Your task to perform on an android device: Show the shopping cart on newegg. Search for dell xps on newegg, select the first entry, add it to the cart, then select checkout. Image 0: 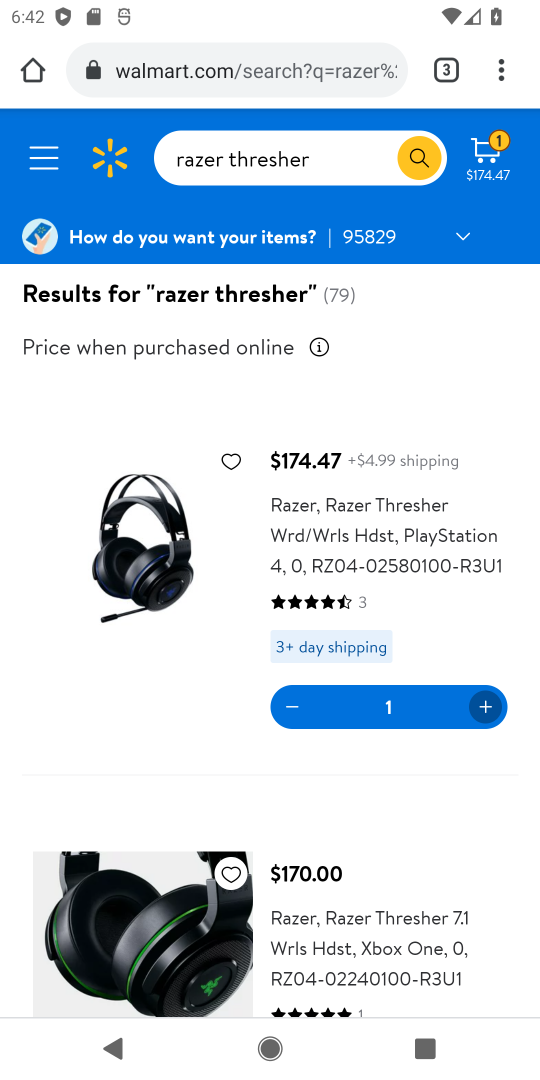
Step 0: press home button
Your task to perform on an android device: Show the shopping cart on newegg. Search for dell xps on newegg, select the first entry, add it to the cart, then select checkout. Image 1: 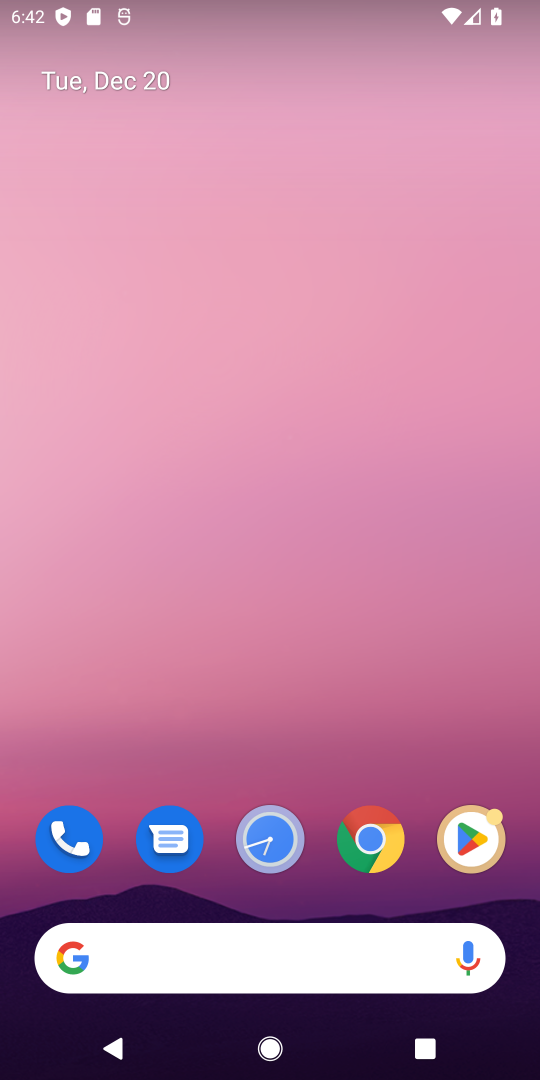
Step 1: click (171, 967)
Your task to perform on an android device: Show the shopping cart on newegg. Search for dell xps on newegg, select the first entry, add it to the cart, then select checkout. Image 2: 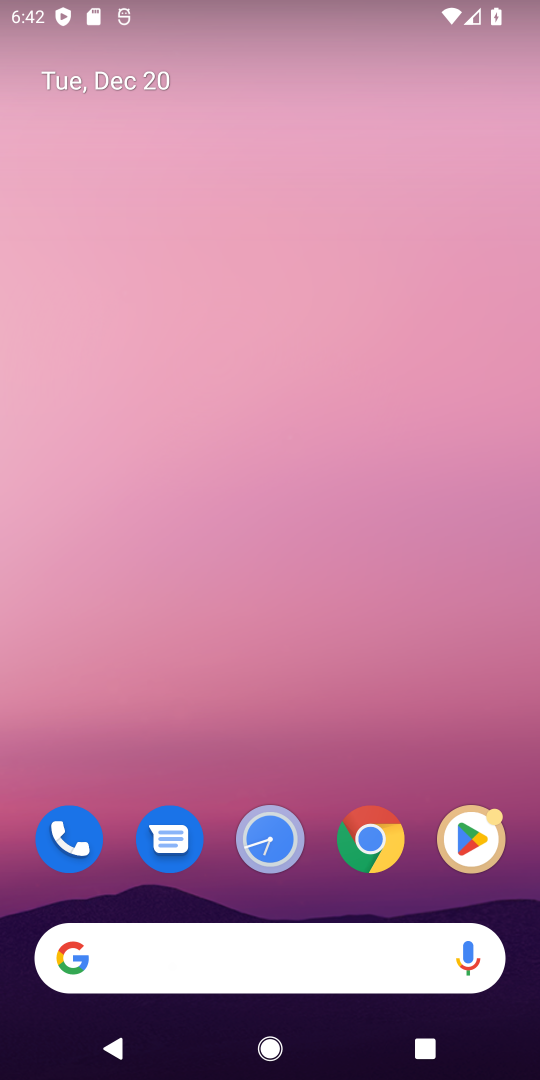
Step 2: click (171, 967)
Your task to perform on an android device: Show the shopping cart on newegg. Search for dell xps on newegg, select the first entry, add it to the cart, then select checkout. Image 3: 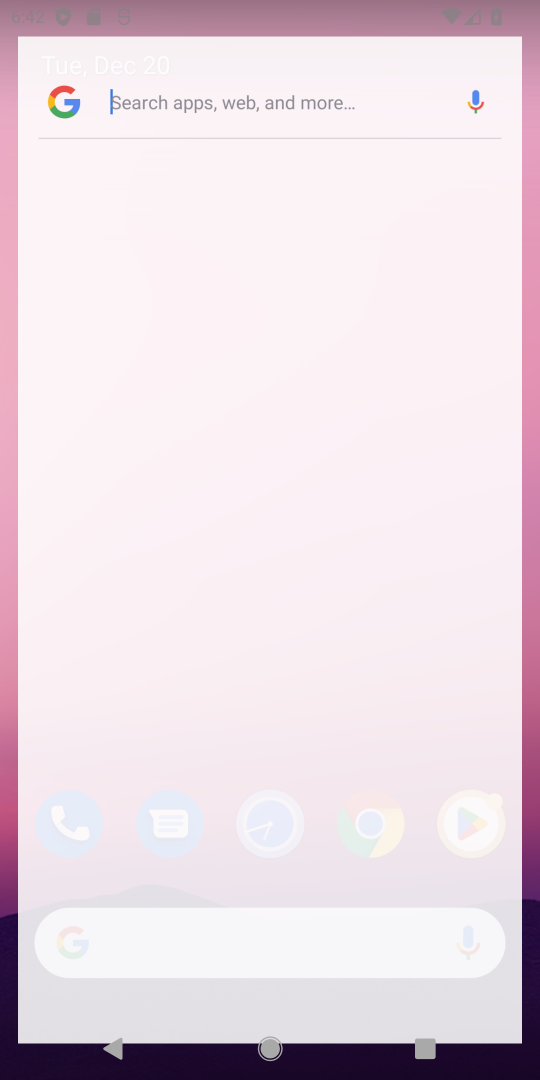
Step 3: click (220, 924)
Your task to perform on an android device: Show the shopping cart on newegg. Search for dell xps on newegg, select the first entry, add it to the cart, then select checkout. Image 4: 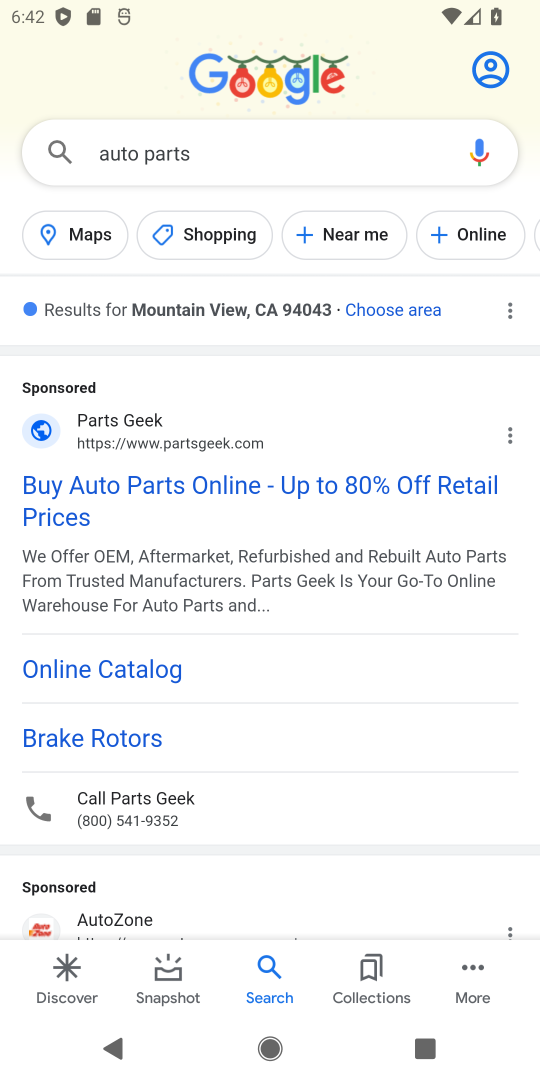
Step 4: click (201, 150)
Your task to perform on an android device: Show the shopping cart on newegg. Search for dell xps on newegg, select the first entry, add it to the cart, then select checkout. Image 5: 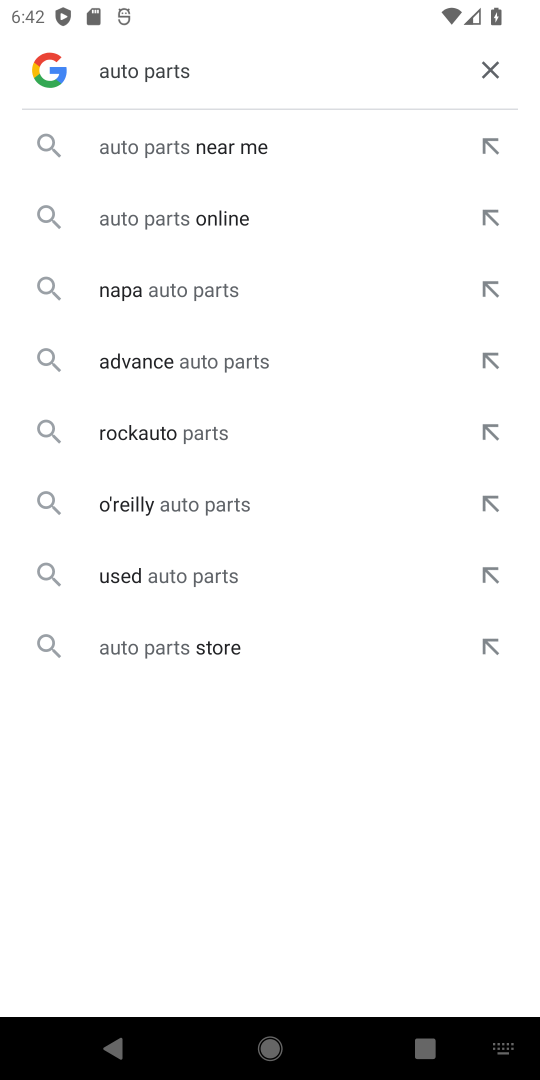
Step 5: click (484, 64)
Your task to perform on an android device: Show the shopping cart on newegg. Search for dell xps on newegg, select the first entry, add it to the cart, then select checkout. Image 6: 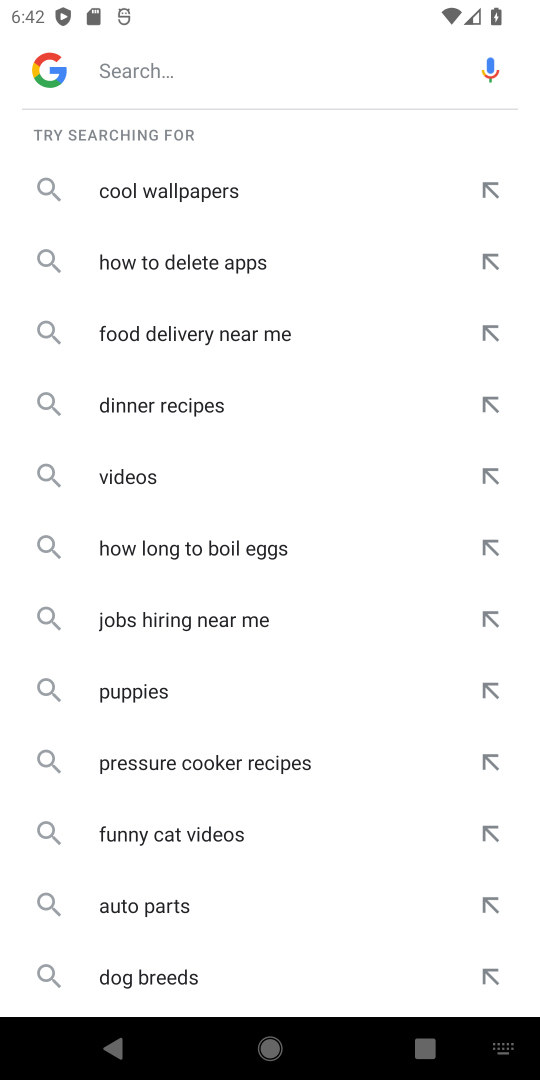
Step 6: type "newegg"
Your task to perform on an android device: Show the shopping cart on newegg. Search for dell xps on newegg, select the first entry, add it to the cart, then select checkout. Image 7: 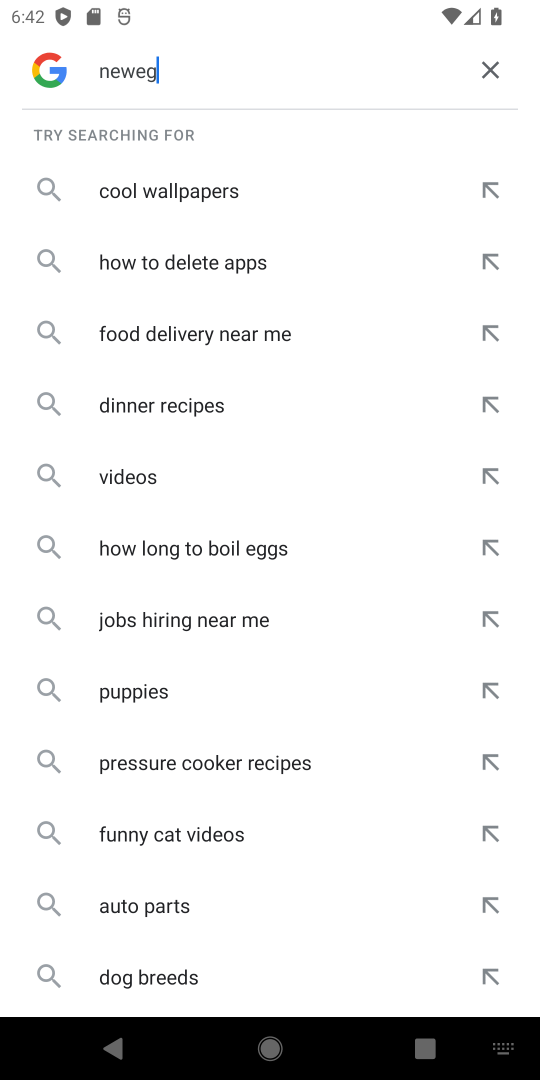
Step 7: type ""
Your task to perform on an android device: Show the shopping cart on newegg. Search for dell xps on newegg, select the first entry, add it to the cart, then select checkout. Image 8: 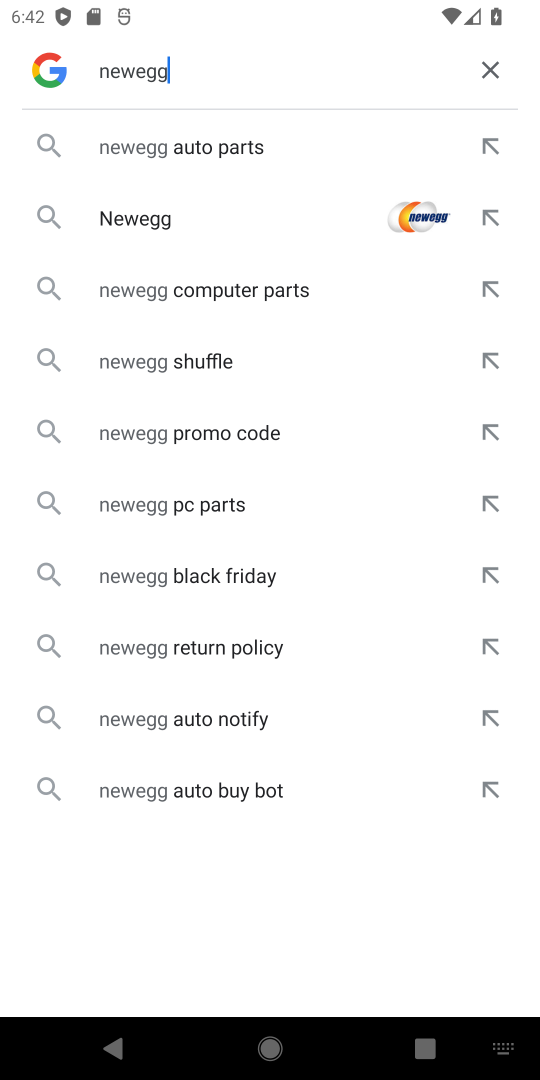
Step 8: click (354, 202)
Your task to perform on an android device: Show the shopping cart on newegg. Search for dell xps on newegg, select the first entry, add it to the cart, then select checkout. Image 9: 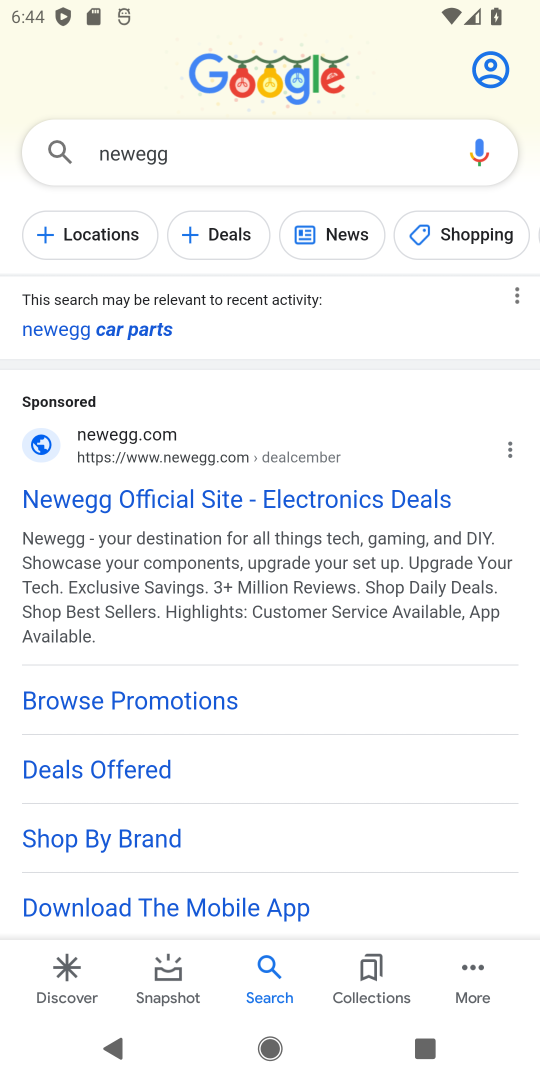
Step 9: click (259, 504)
Your task to perform on an android device: Show the shopping cart on newegg. Search for dell xps on newegg, select the first entry, add it to the cart, then select checkout. Image 10: 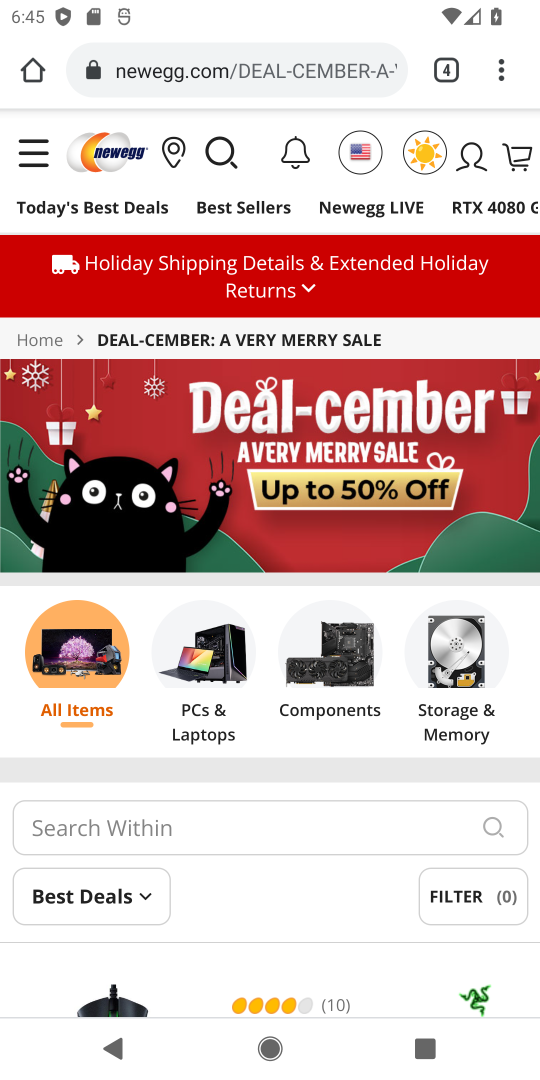
Step 10: click (512, 160)
Your task to perform on an android device: Show the shopping cart on newegg. Search for dell xps on newegg, select the first entry, add it to the cart, then select checkout. Image 11: 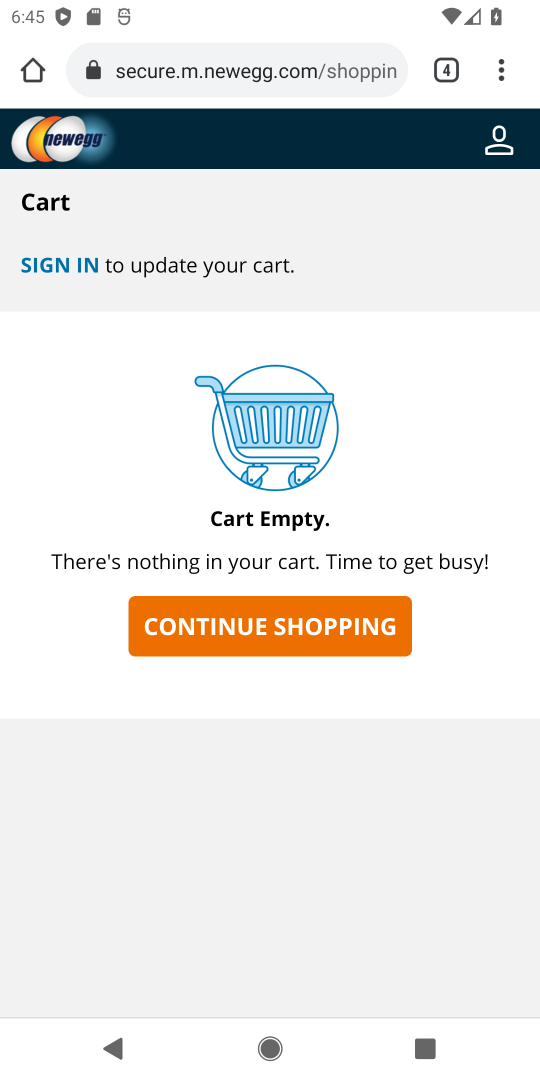
Step 11: click (294, 619)
Your task to perform on an android device: Show the shopping cart on newegg. Search for dell xps on newegg, select the first entry, add it to the cart, then select checkout. Image 12: 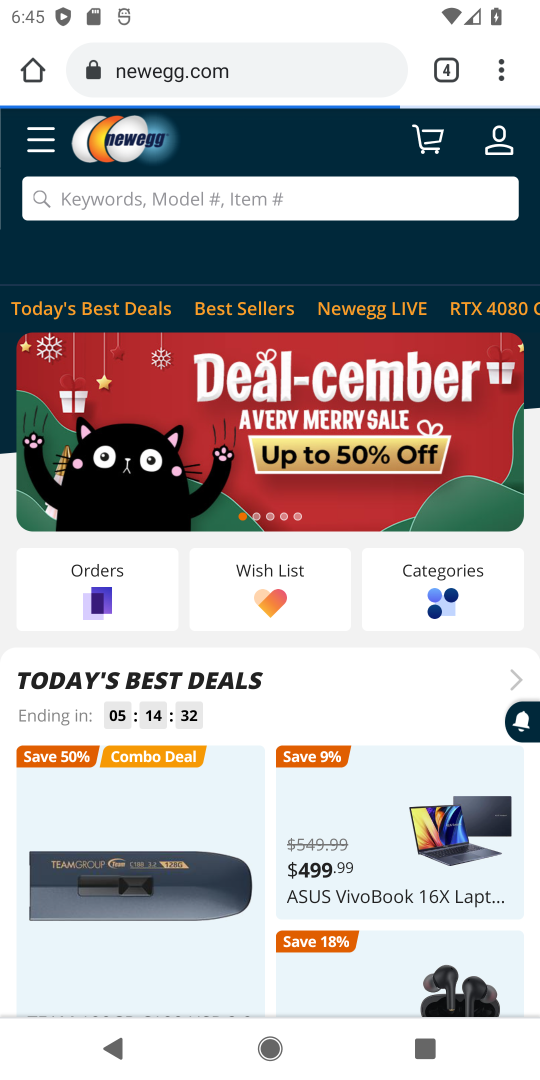
Step 12: click (209, 193)
Your task to perform on an android device: Show the shopping cart on newegg. Search for dell xps on newegg, select the first entry, add it to the cart, then select checkout. Image 13: 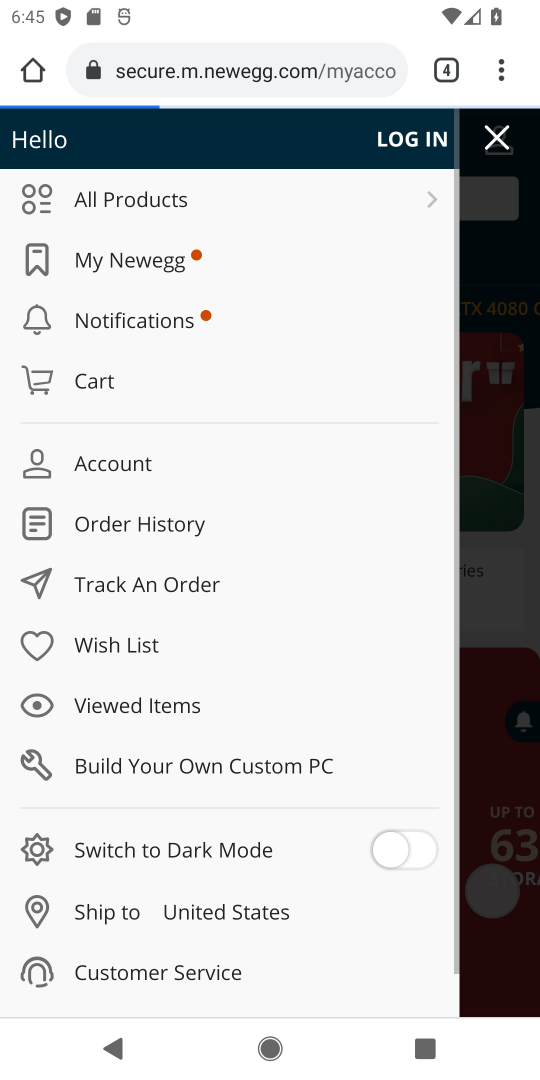
Step 13: click (401, 207)
Your task to perform on an android device: Show the shopping cart on newegg. Search for dell xps on newegg, select the first entry, add it to the cart, then select checkout. Image 14: 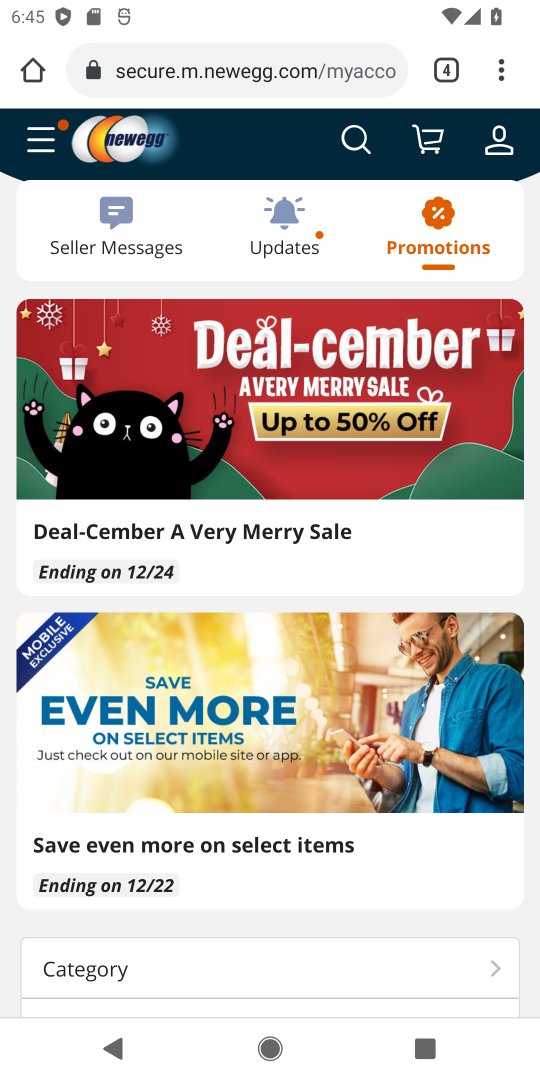
Step 14: click (355, 138)
Your task to perform on an android device: Show the shopping cart on newegg. Search for dell xps on newegg, select the first entry, add it to the cart, then select checkout. Image 15: 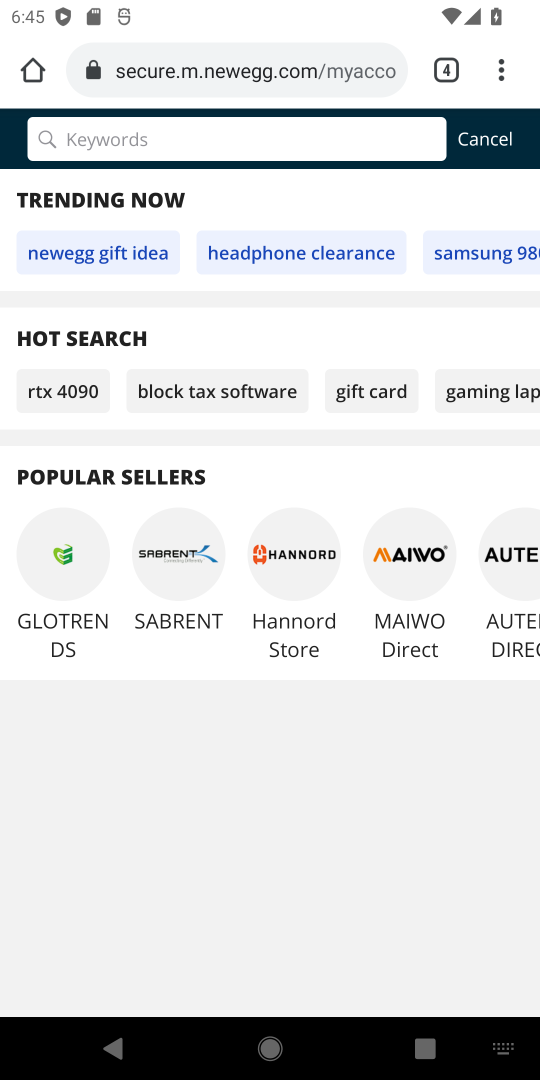
Step 15: type "dell xps "
Your task to perform on an android device: Show the shopping cart on newegg. Search for dell xps on newegg, select the first entry, add it to the cart, then select checkout. Image 16: 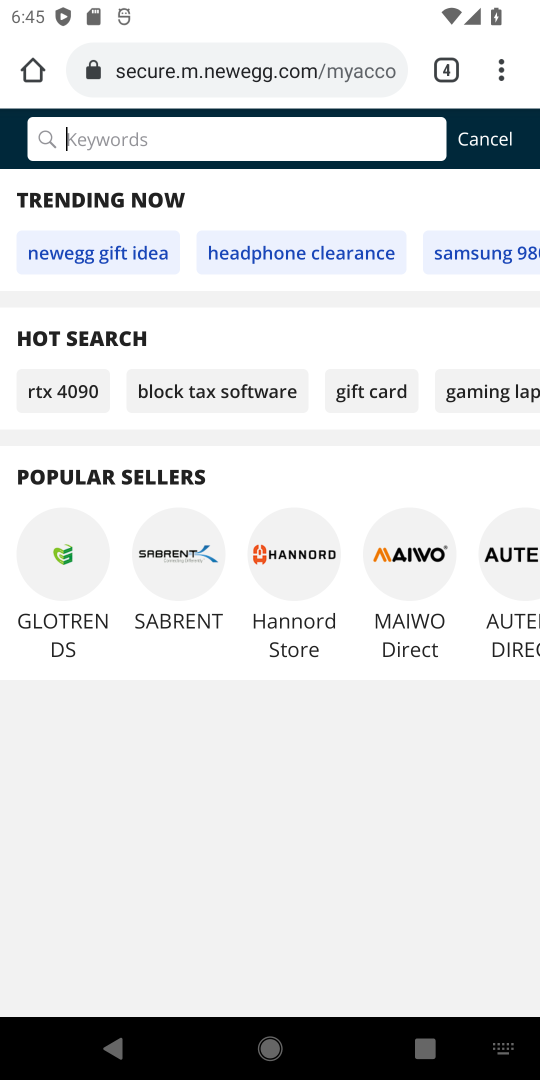
Step 16: type ""
Your task to perform on an android device: Show the shopping cart on newegg. Search for dell xps on newegg, select the first entry, add it to the cart, then select checkout. Image 17: 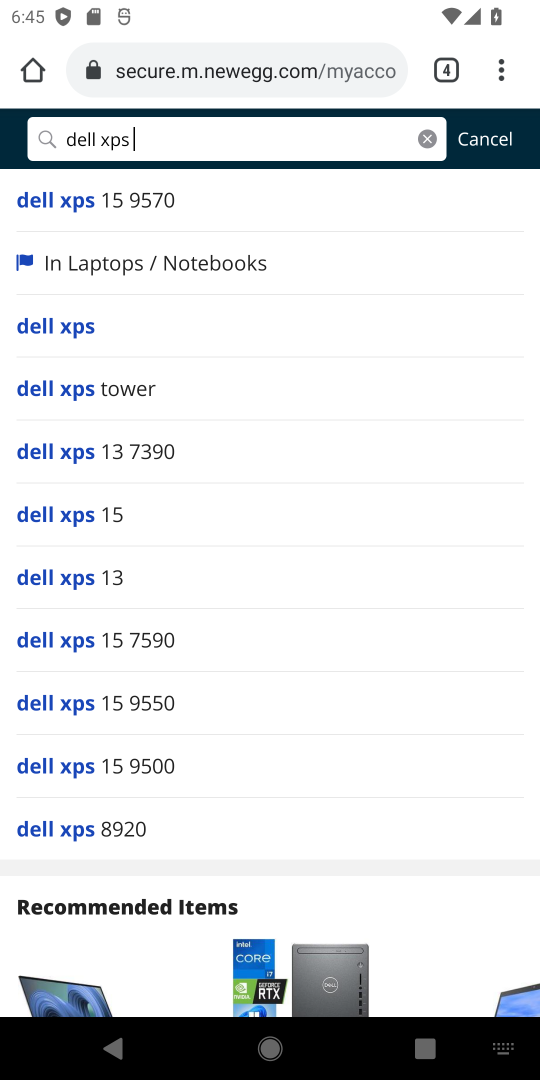
Step 17: click (72, 323)
Your task to perform on an android device: Show the shopping cart on newegg. Search for dell xps on newegg, select the first entry, add it to the cart, then select checkout. Image 18: 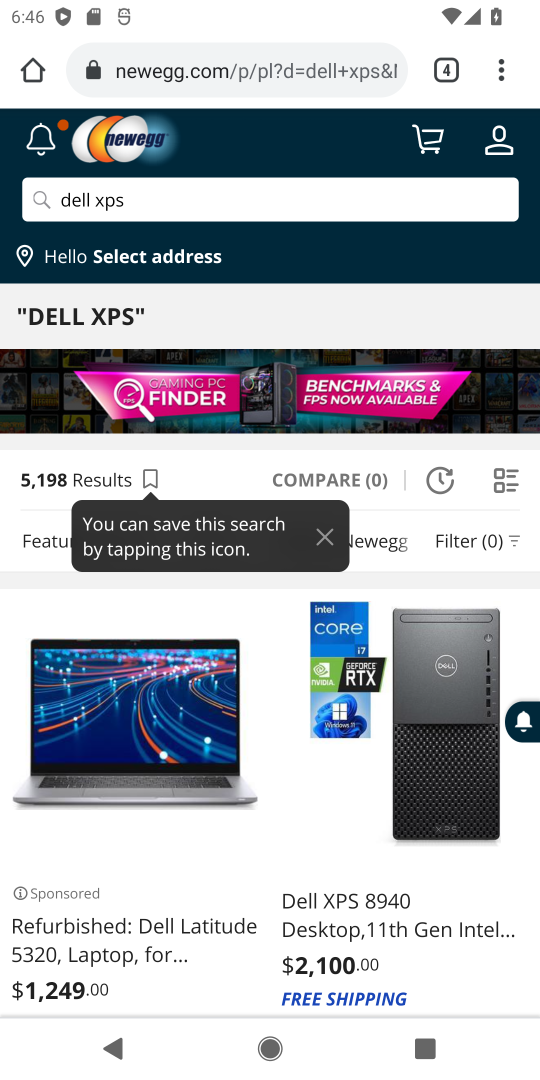
Step 18: click (114, 777)
Your task to perform on an android device: Show the shopping cart on newegg. Search for dell xps on newegg, select the first entry, add it to the cart, then select checkout. Image 19: 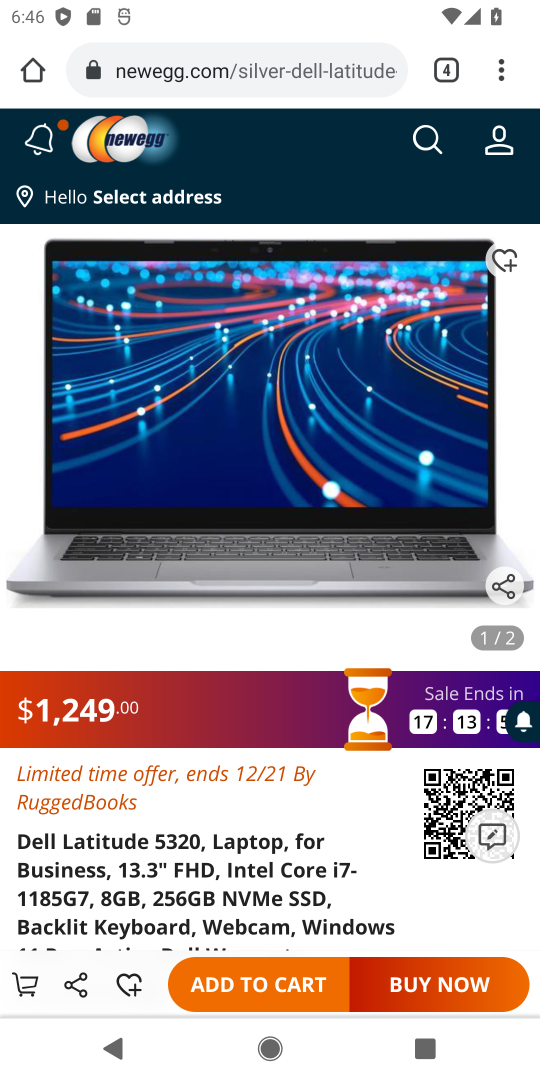
Step 19: drag from (264, 876) to (257, 190)
Your task to perform on an android device: Show the shopping cart on newegg. Search for dell xps on newegg, select the first entry, add it to the cart, then select checkout. Image 20: 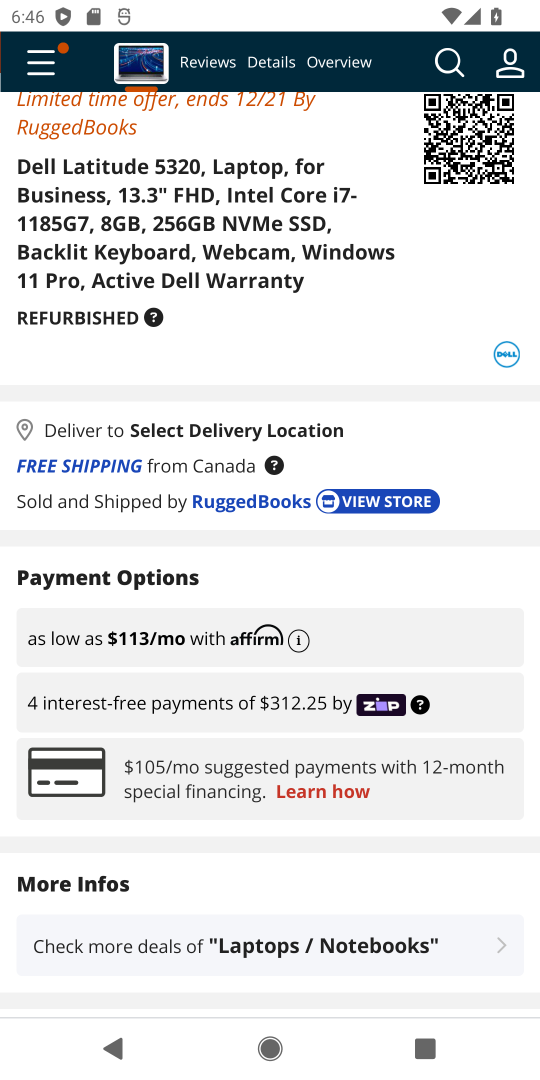
Step 20: click (264, 986)
Your task to perform on an android device: Show the shopping cart on newegg. Search for dell xps on newegg, select the first entry, add it to the cart, then select checkout. Image 21: 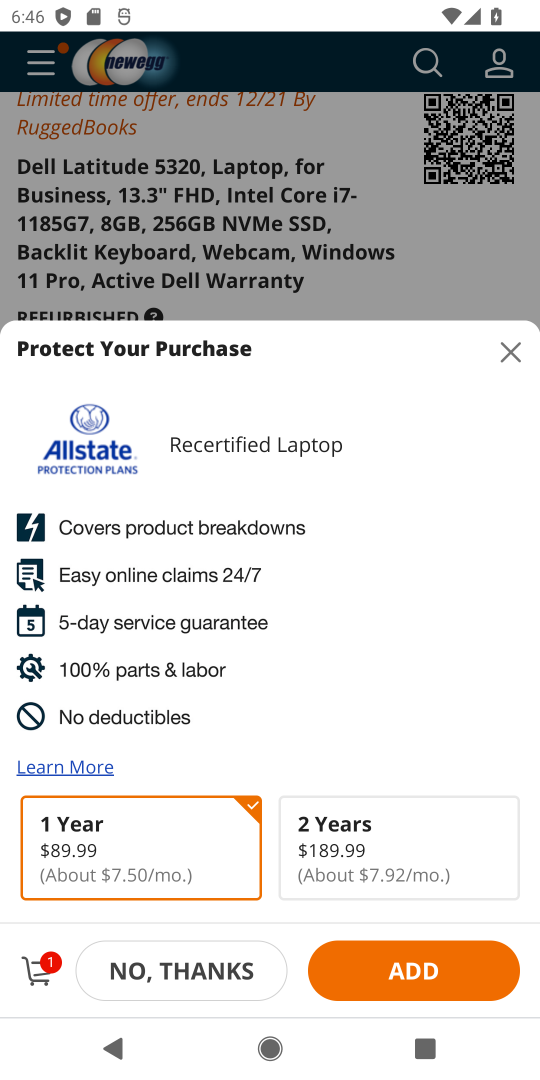
Step 21: click (138, 958)
Your task to perform on an android device: Show the shopping cart on newegg. Search for dell xps on newegg, select the first entry, add it to the cart, then select checkout. Image 22: 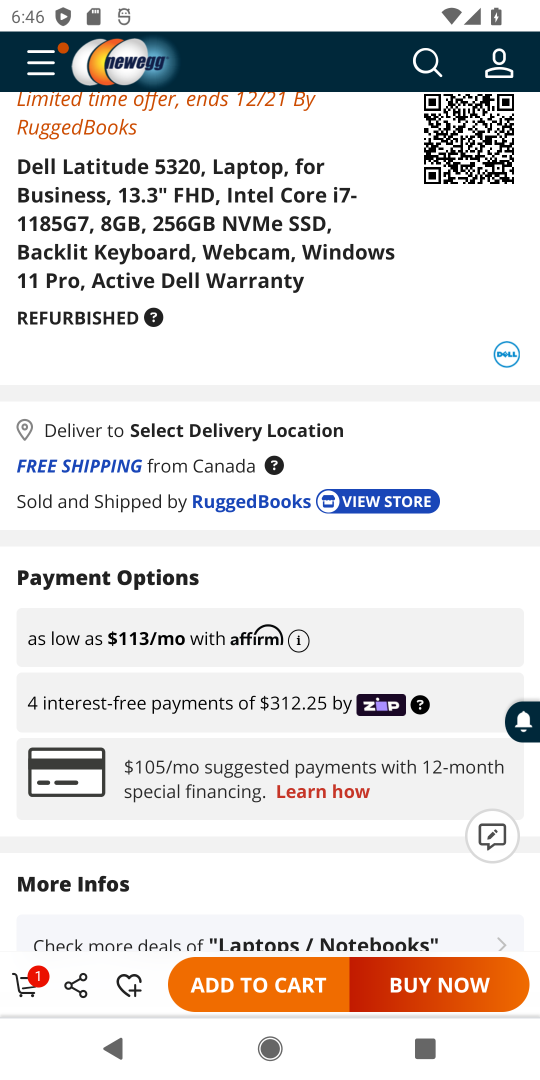
Step 22: click (14, 979)
Your task to perform on an android device: Show the shopping cart on newegg. Search for dell xps on newegg, select the first entry, add it to the cart, then select checkout. Image 23: 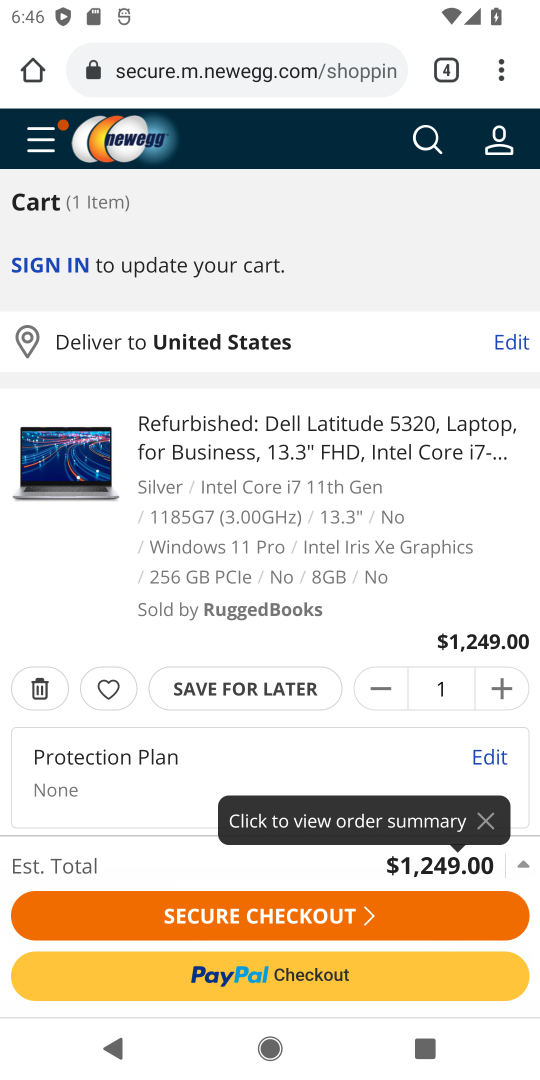
Step 23: click (256, 927)
Your task to perform on an android device: Show the shopping cart on newegg. Search for dell xps on newegg, select the first entry, add it to the cart, then select checkout. Image 24: 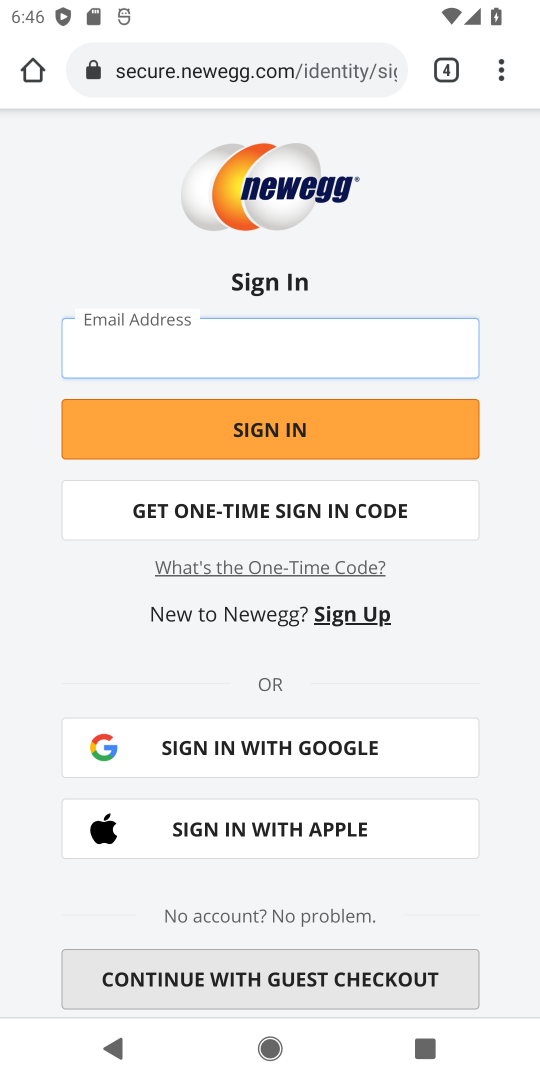
Step 24: task complete